Your task to perform on an android device: add a contact Image 0: 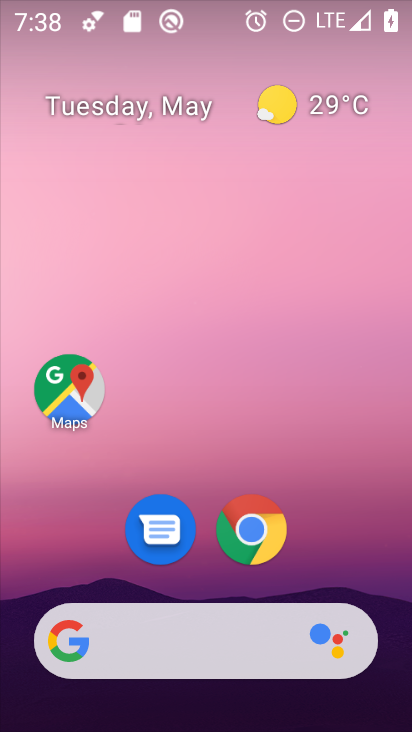
Step 0: drag from (384, 652) to (290, 92)
Your task to perform on an android device: add a contact Image 1: 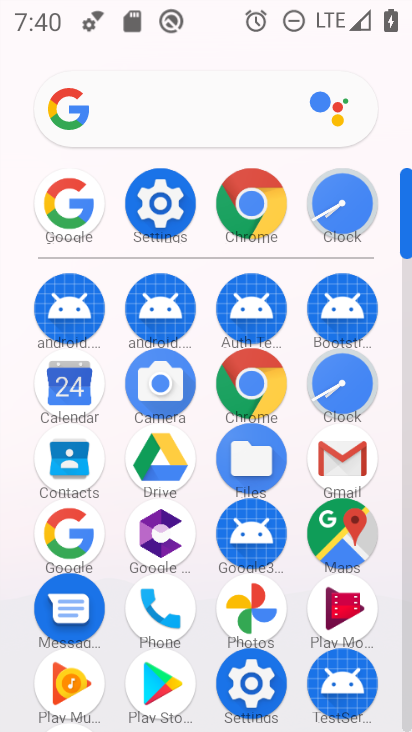
Step 1: click (86, 465)
Your task to perform on an android device: add a contact Image 2: 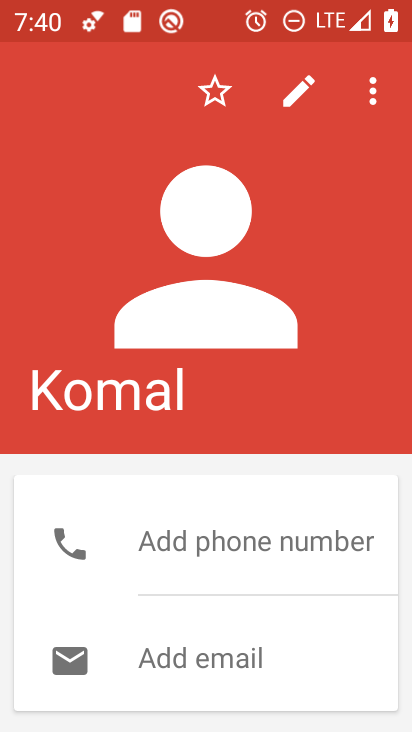
Step 2: press back button
Your task to perform on an android device: add a contact Image 3: 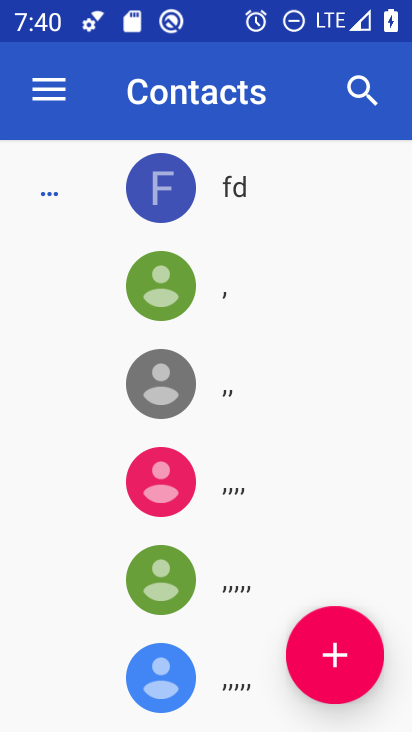
Step 3: click (352, 651)
Your task to perform on an android device: add a contact Image 4: 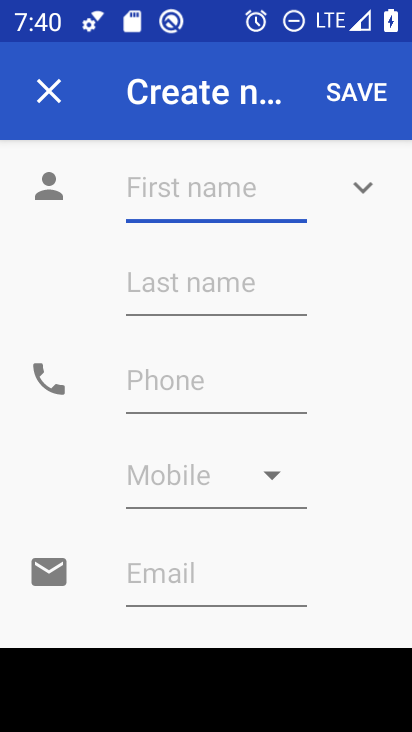
Step 4: type "khushi"
Your task to perform on an android device: add a contact Image 5: 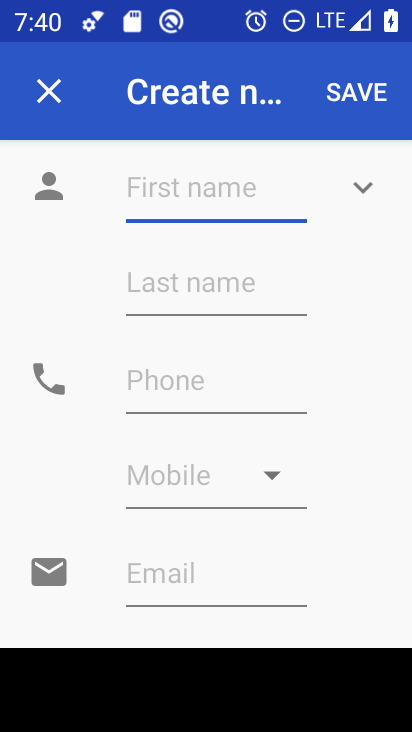
Step 5: click (373, 91)
Your task to perform on an android device: add a contact Image 6: 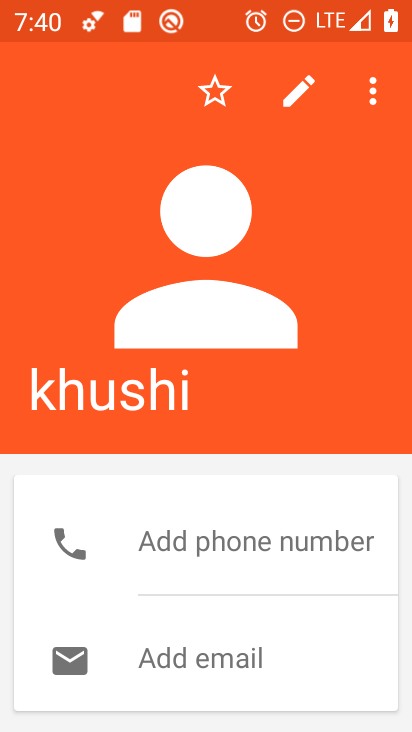
Step 6: task complete